Your task to perform on an android device: What's the weather? Image 0: 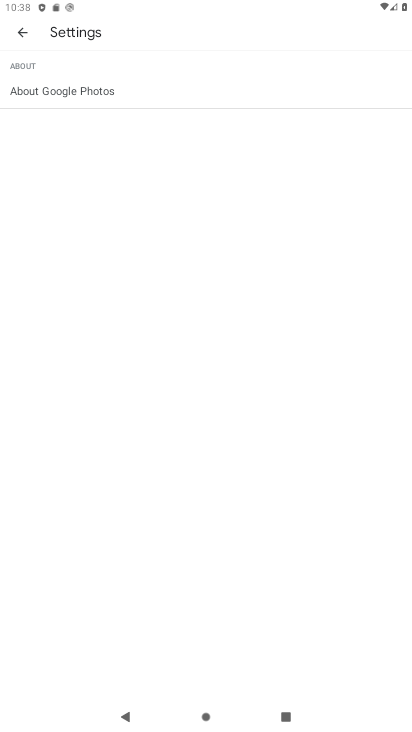
Step 0: press home button
Your task to perform on an android device: What's the weather? Image 1: 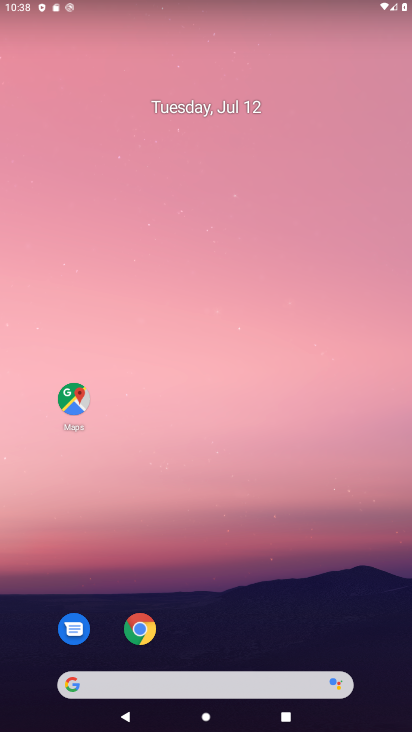
Step 1: click (226, 682)
Your task to perform on an android device: What's the weather? Image 2: 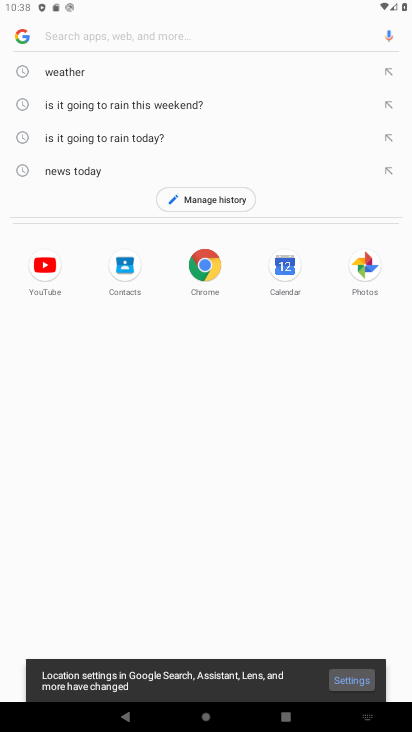
Step 2: click (59, 63)
Your task to perform on an android device: What's the weather? Image 3: 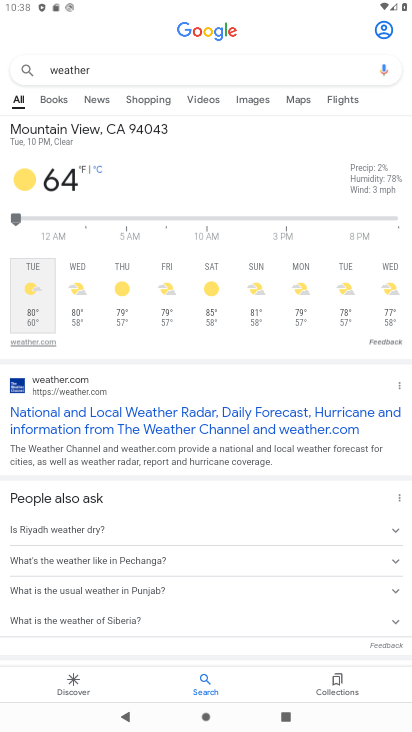
Step 3: task complete